Your task to perform on an android device: turn vacation reply on in the gmail app Image 0: 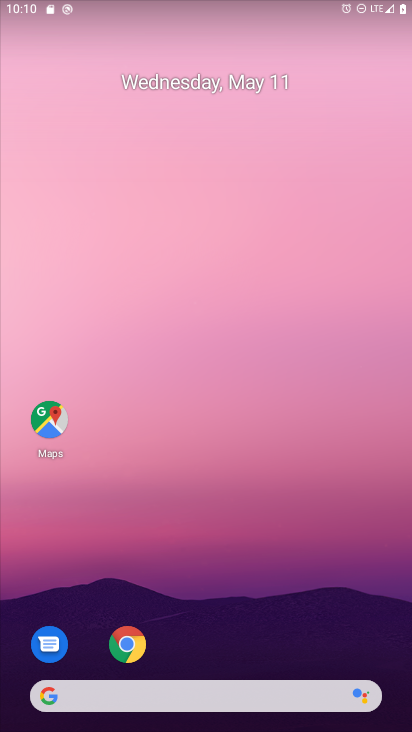
Step 0: drag from (204, 603) to (75, 127)
Your task to perform on an android device: turn vacation reply on in the gmail app Image 1: 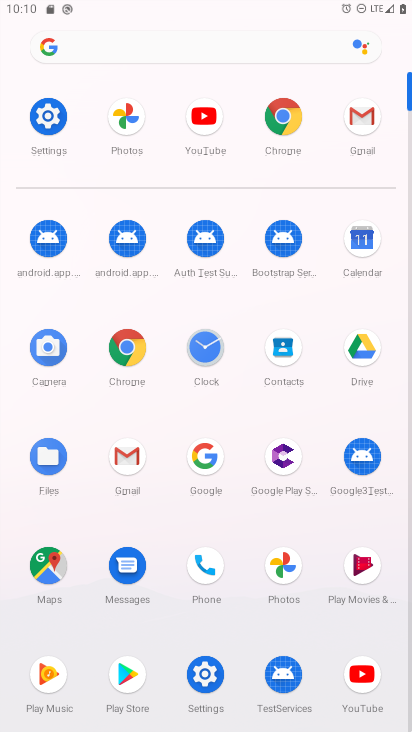
Step 1: click (359, 118)
Your task to perform on an android device: turn vacation reply on in the gmail app Image 2: 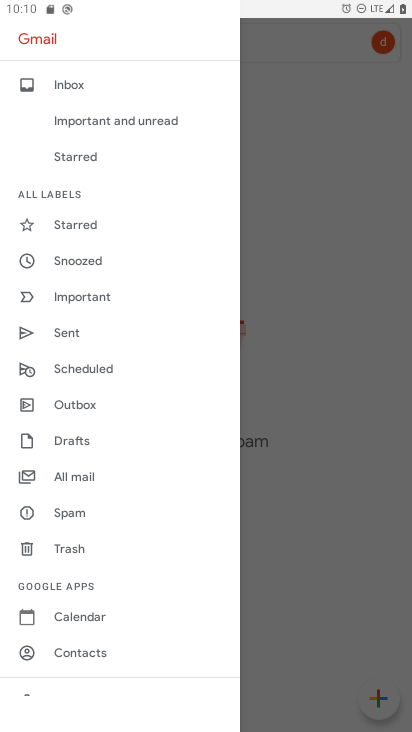
Step 2: drag from (115, 622) to (29, 278)
Your task to perform on an android device: turn vacation reply on in the gmail app Image 3: 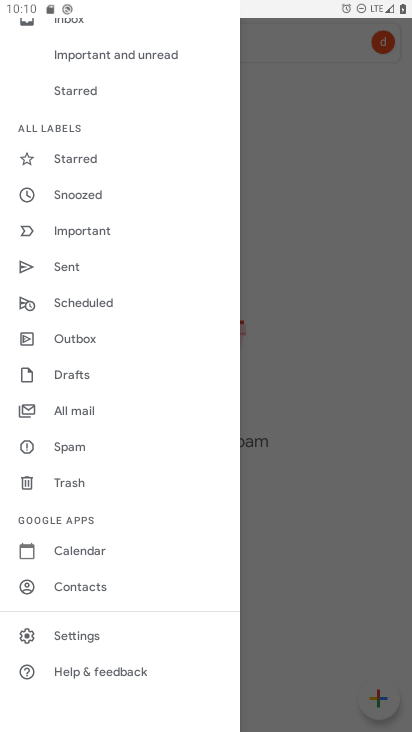
Step 3: click (64, 635)
Your task to perform on an android device: turn vacation reply on in the gmail app Image 4: 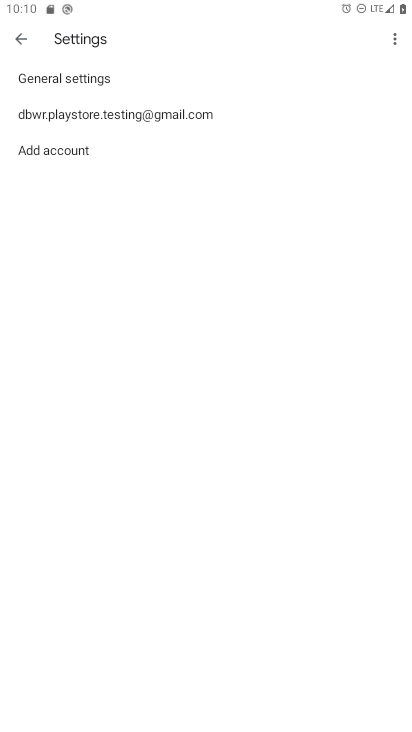
Step 4: click (91, 104)
Your task to perform on an android device: turn vacation reply on in the gmail app Image 5: 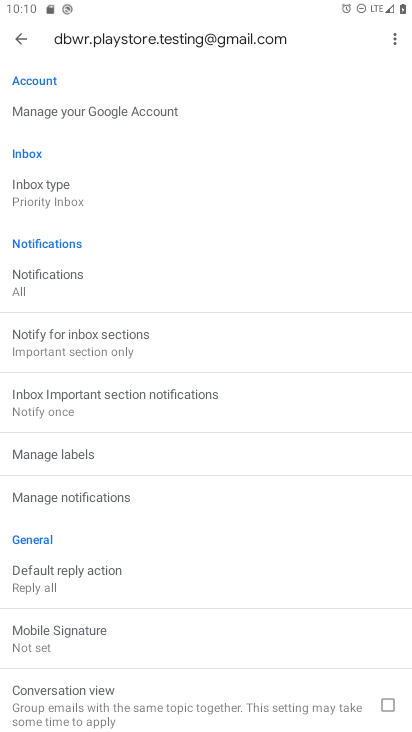
Step 5: drag from (197, 543) to (98, 53)
Your task to perform on an android device: turn vacation reply on in the gmail app Image 6: 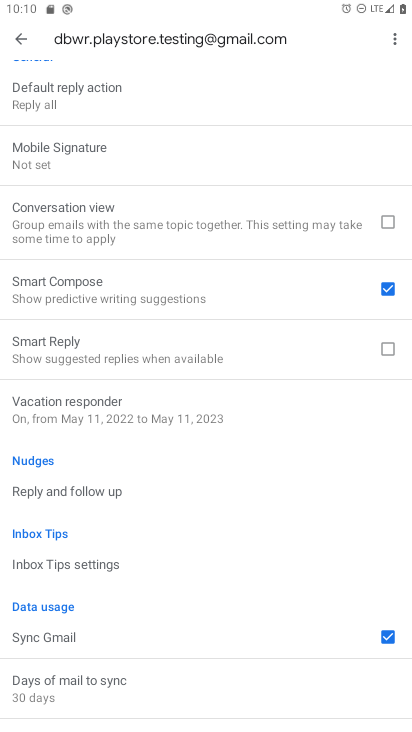
Step 6: click (79, 405)
Your task to perform on an android device: turn vacation reply on in the gmail app Image 7: 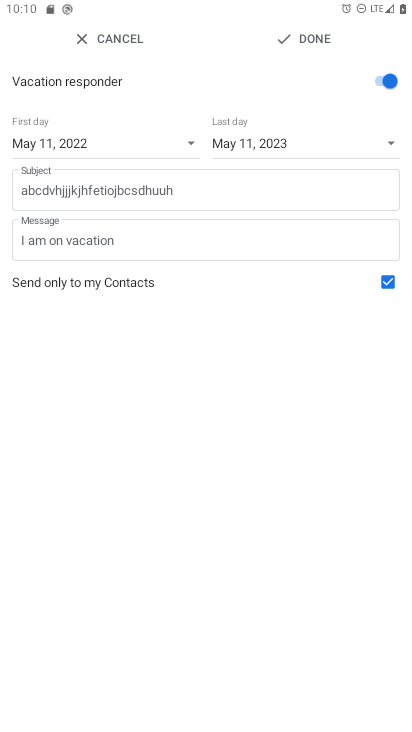
Step 7: task complete